Your task to perform on an android device: What is the recent news? Image 0: 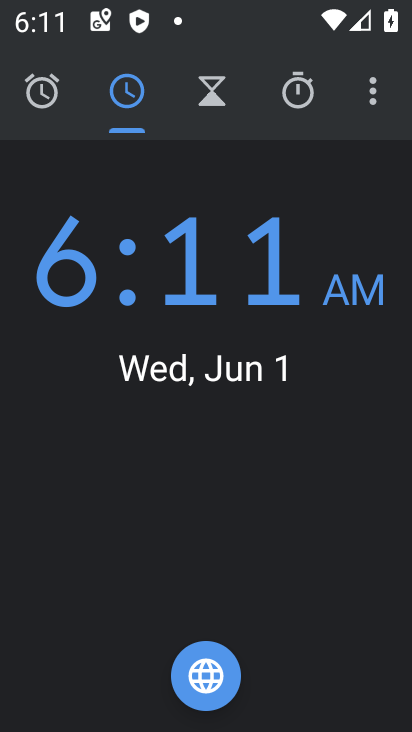
Step 0: press home button
Your task to perform on an android device: What is the recent news? Image 1: 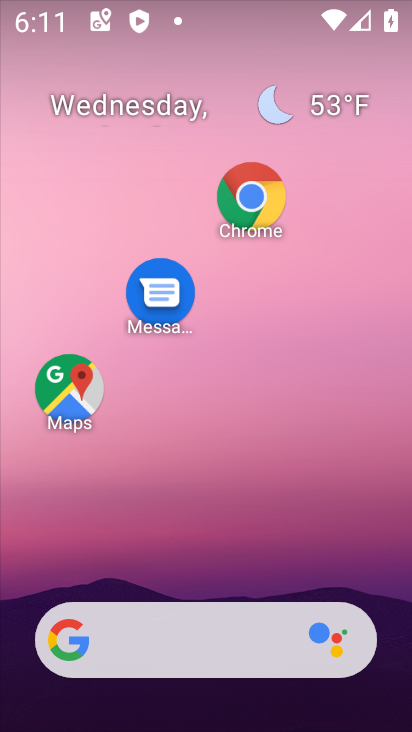
Step 1: drag from (205, 612) to (155, 116)
Your task to perform on an android device: What is the recent news? Image 2: 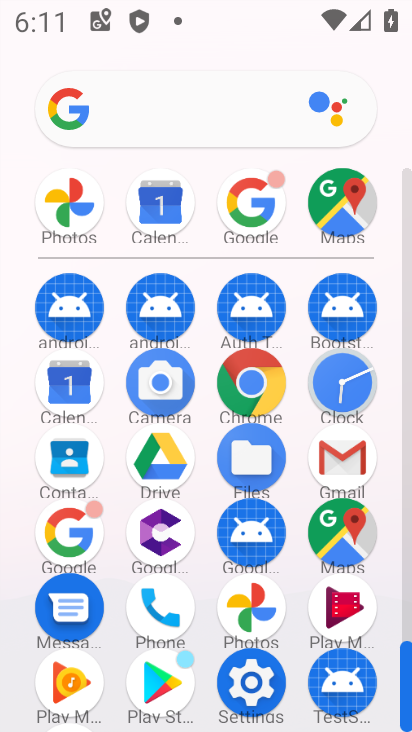
Step 2: click (81, 547)
Your task to perform on an android device: What is the recent news? Image 3: 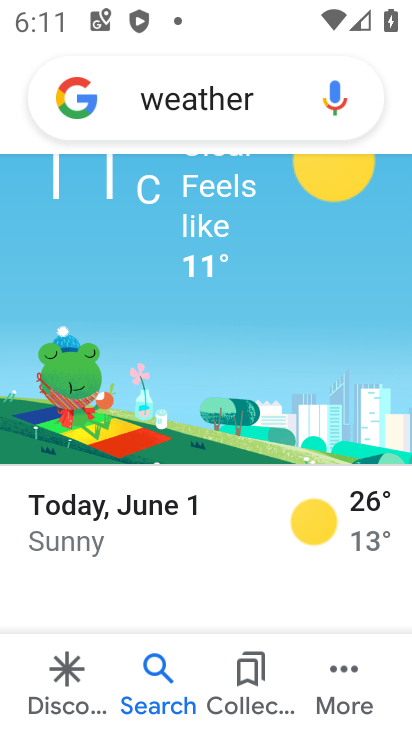
Step 3: click (286, 100)
Your task to perform on an android device: What is the recent news? Image 4: 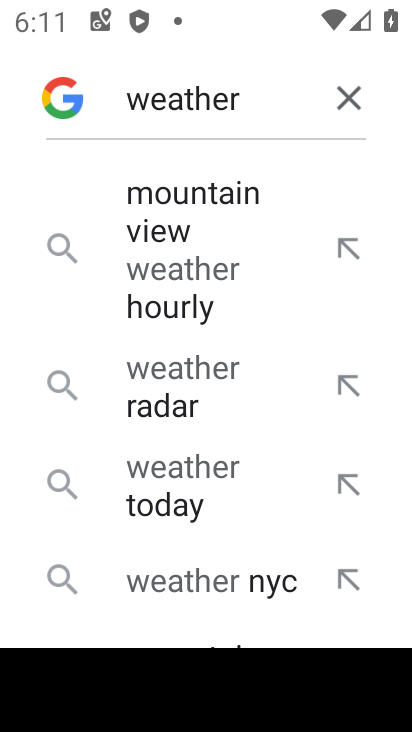
Step 4: click (342, 97)
Your task to perform on an android device: What is the recent news? Image 5: 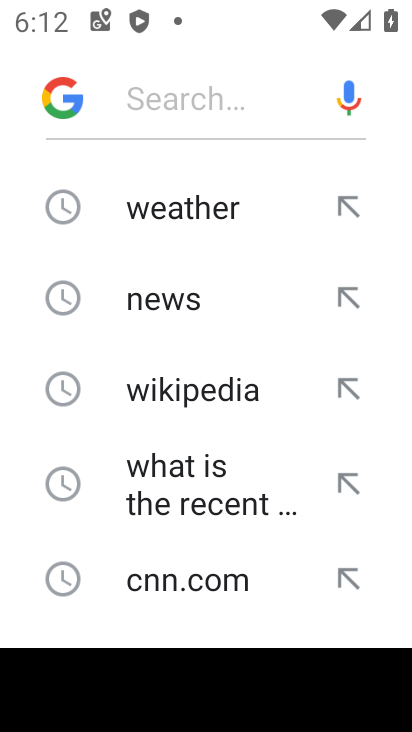
Step 5: drag from (220, 546) to (202, 243)
Your task to perform on an android device: What is the recent news? Image 6: 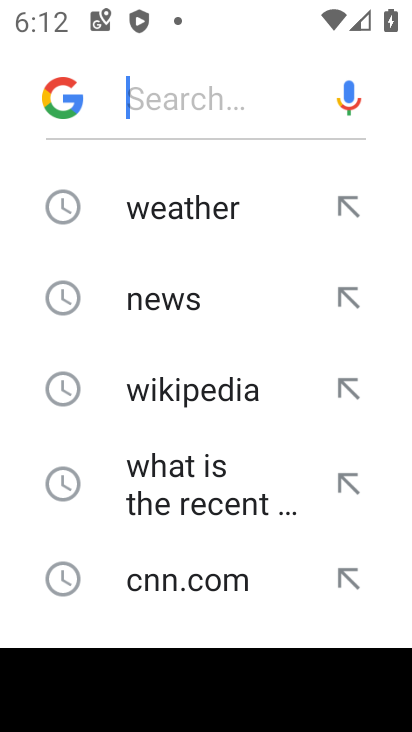
Step 6: type "recent news"
Your task to perform on an android device: What is the recent news? Image 7: 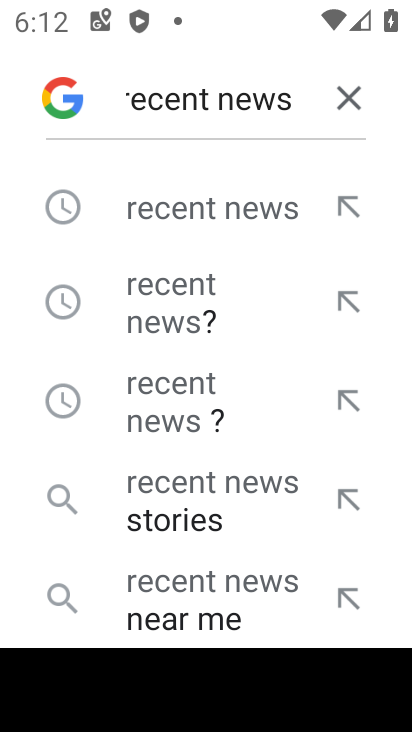
Step 7: click (258, 220)
Your task to perform on an android device: What is the recent news? Image 8: 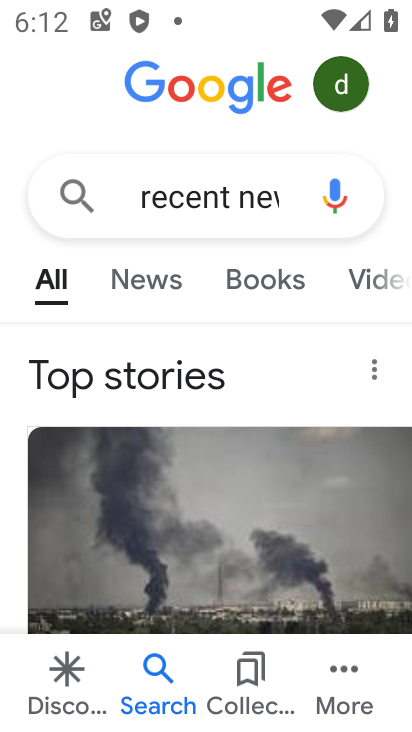
Step 8: task complete